Your task to perform on an android device: turn on wifi Image 0: 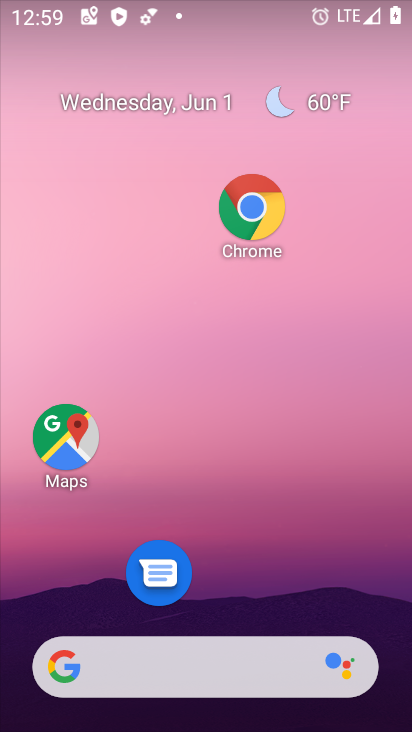
Step 0: drag from (201, 596) to (195, 213)
Your task to perform on an android device: turn on wifi Image 1: 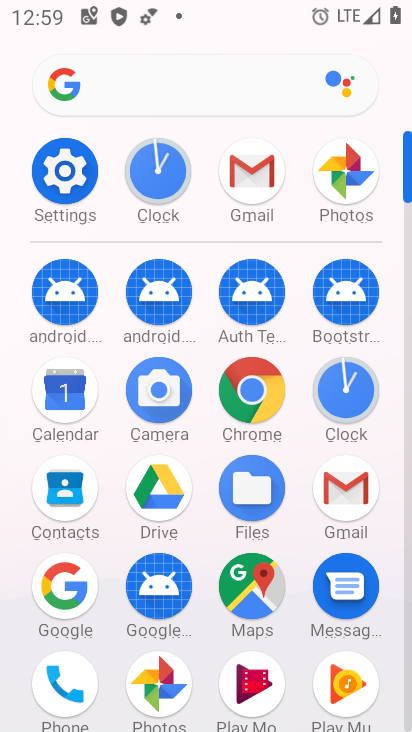
Step 1: click (73, 172)
Your task to perform on an android device: turn on wifi Image 2: 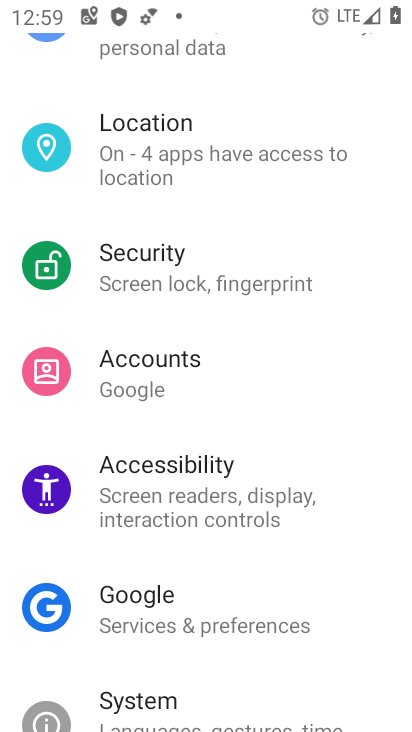
Step 2: drag from (188, 167) to (243, 535)
Your task to perform on an android device: turn on wifi Image 3: 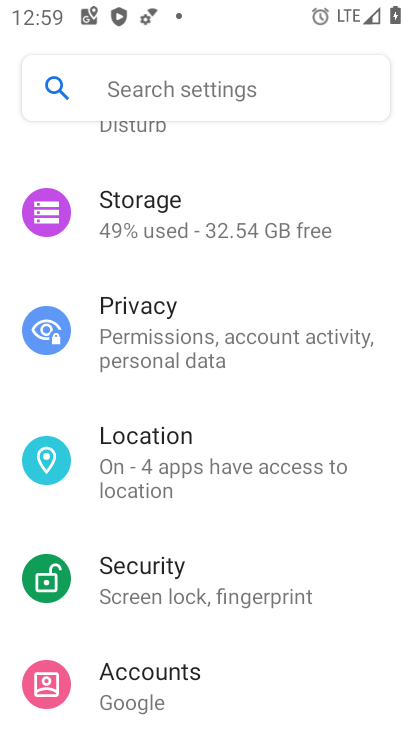
Step 3: drag from (226, 361) to (248, 551)
Your task to perform on an android device: turn on wifi Image 4: 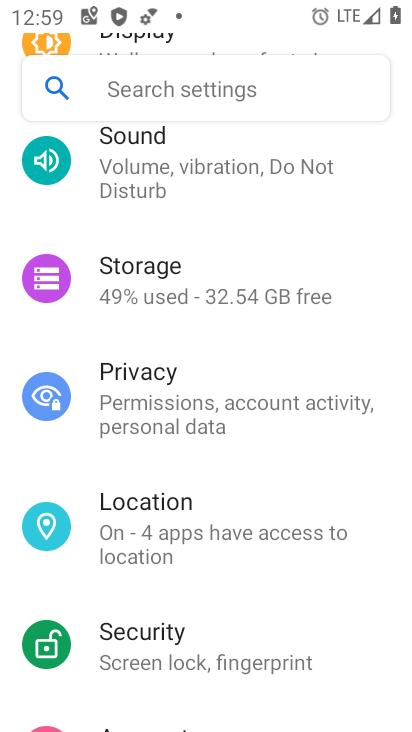
Step 4: drag from (212, 215) to (212, 644)
Your task to perform on an android device: turn on wifi Image 5: 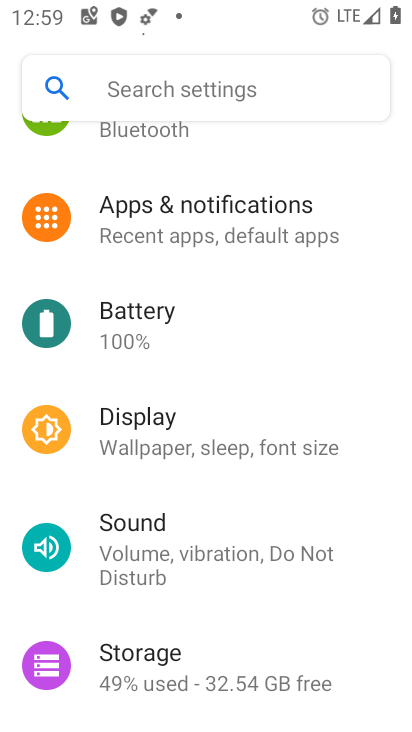
Step 5: drag from (196, 218) to (235, 621)
Your task to perform on an android device: turn on wifi Image 6: 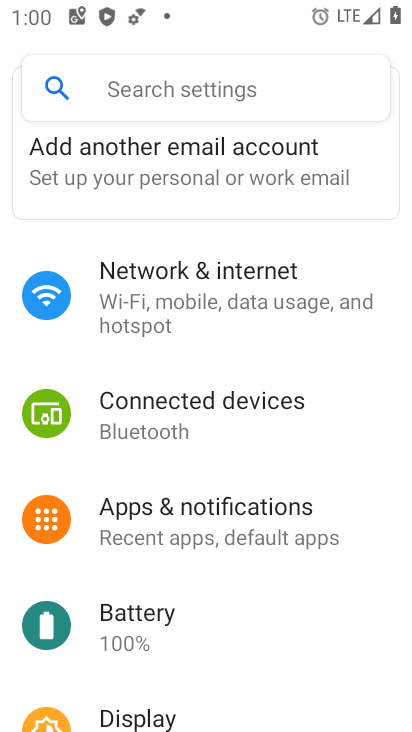
Step 6: click (193, 278)
Your task to perform on an android device: turn on wifi Image 7: 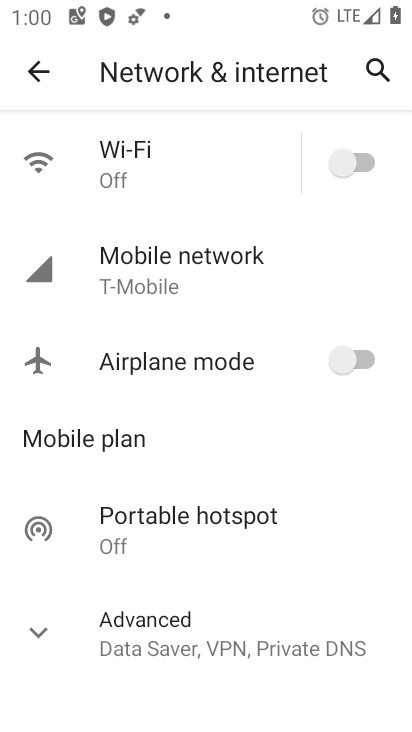
Step 7: click (360, 160)
Your task to perform on an android device: turn on wifi Image 8: 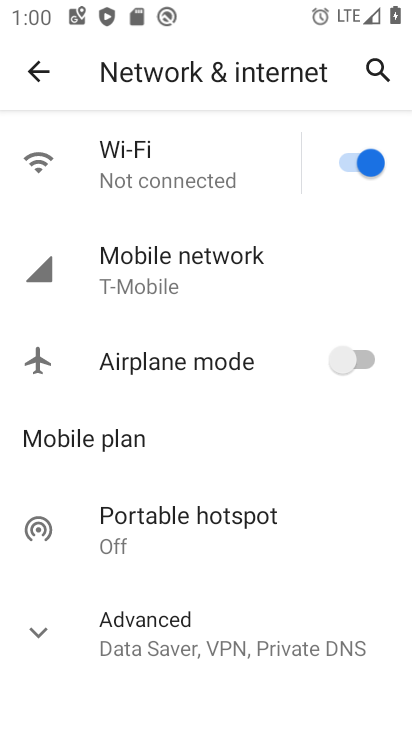
Step 8: task complete